Your task to perform on an android device: Open the phone app and click the voicemail tab. Image 0: 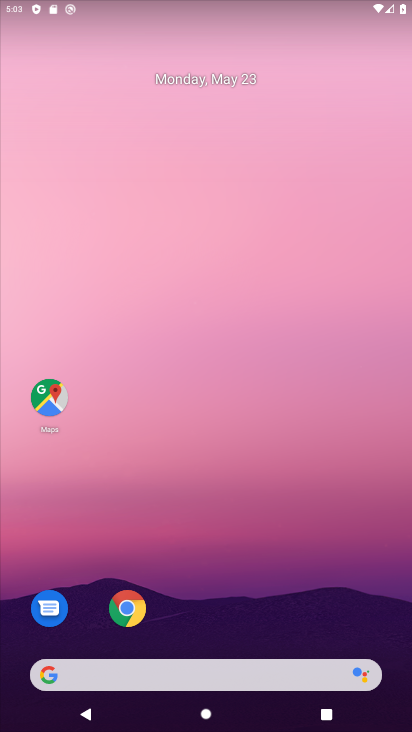
Step 0: drag from (173, 605) to (178, 63)
Your task to perform on an android device: Open the phone app and click the voicemail tab. Image 1: 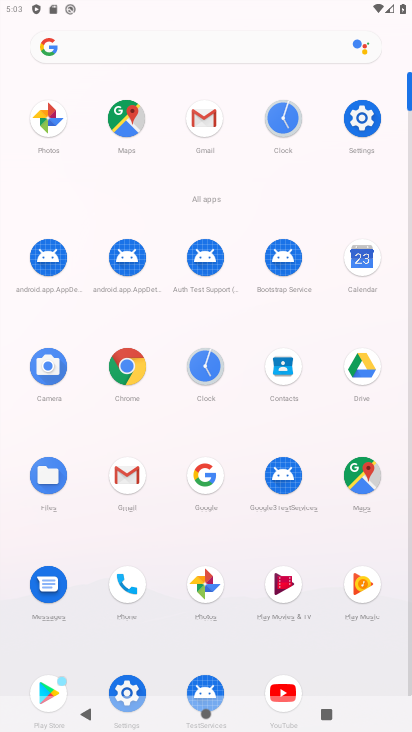
Step 1: click (122, 581)
Your task to perform on an android device: Open the phone app and click the voicemail tab. Image 2: 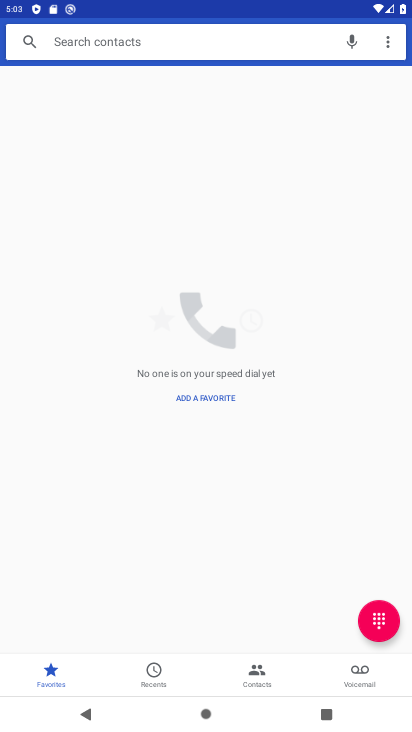
Step 2: click (356, 673)
Your task to perform on an android device: Open the phone app and click the voicemail tab. Image 3: 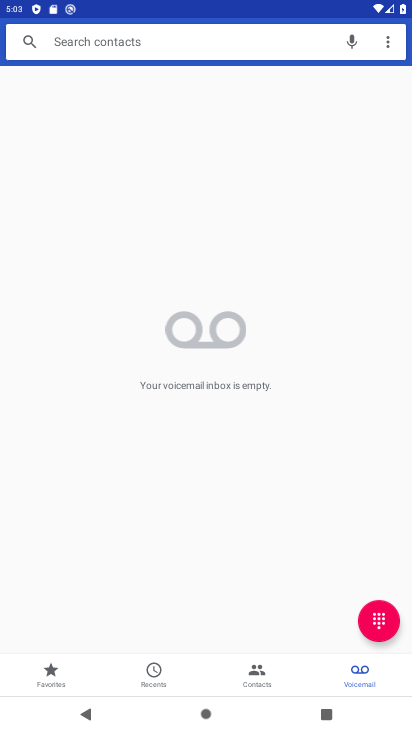
Step 3: click (364, 677)
Your task to perform on an android device: Open the phone app and click the voicemail tab. Image 4: 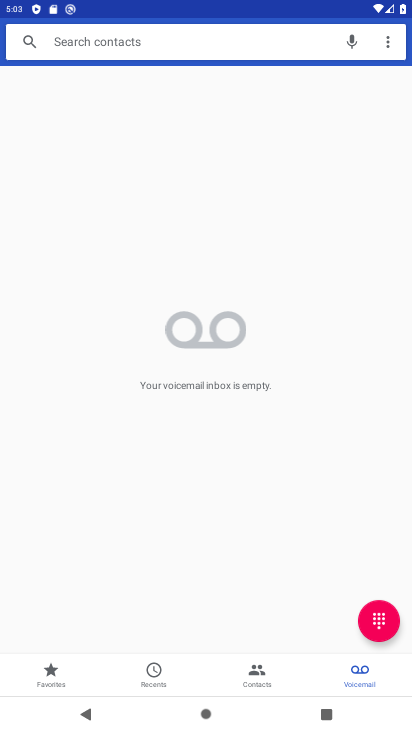
Step 4: task complete